Your task to perform on an android device: Turn on the flashlight Image 0: 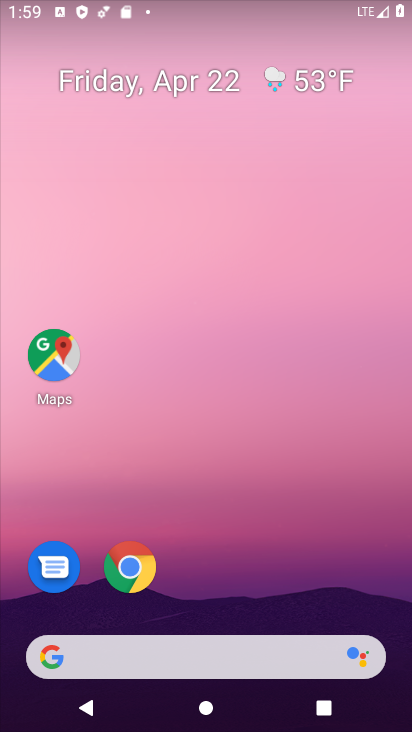
Step 0: drag from (207, 18) to (183, 535)
Your task to perform on an android device: Turn on the flashlight Image 1: 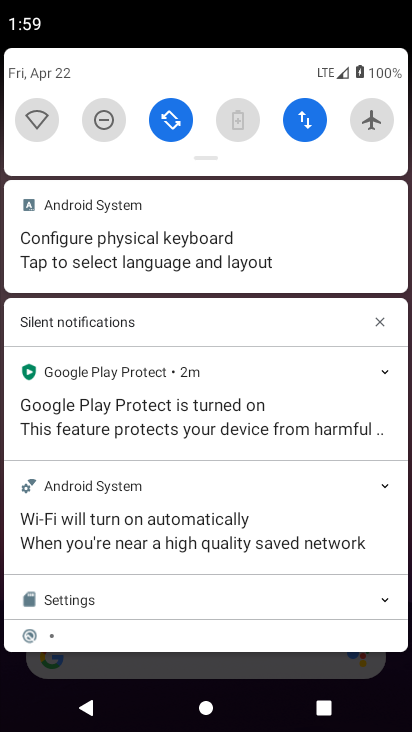
Step 1: drag from (193, 153) to (200, 402)
Your task to perform on an android device: Turn on the flashlight Image 2: 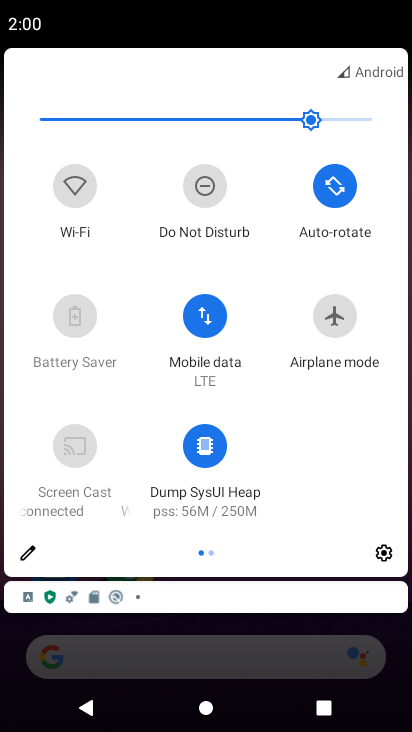
Step 2: click (20, 556)
Your task to perform on an android device: Turn on the flashlight Image 3: 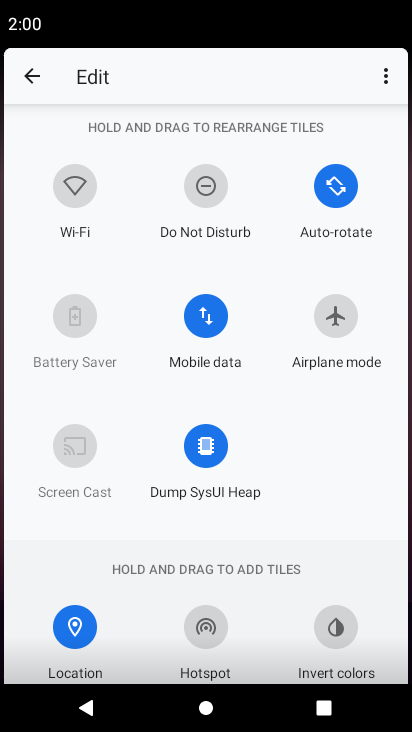
Step 3: task complete